Your task to perform on an android device: Go to notification settings Image 0: 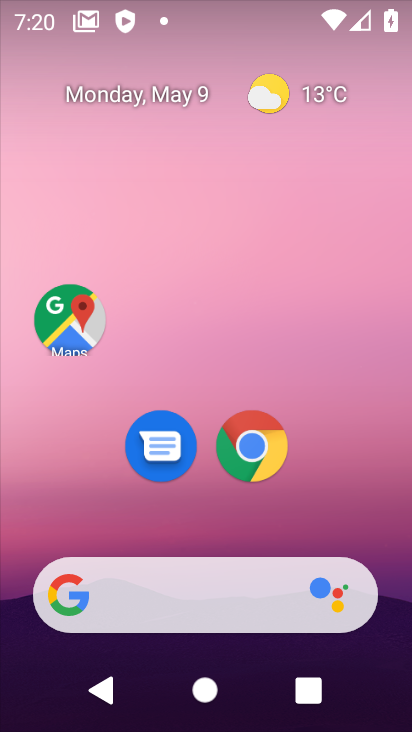
Step 0: drag from (342, 502) to (320, 151)
Your task to perform on an android device: Go to notification settings Image 1: 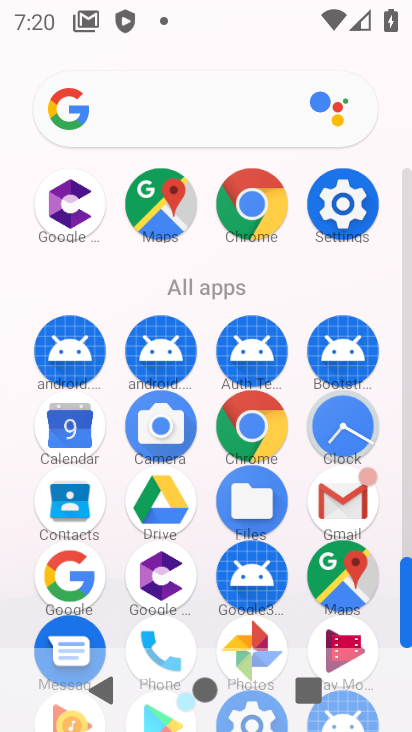
Step 1: click (344, 223)
Your task to perform on an android device: Go to notification settings Image 2: 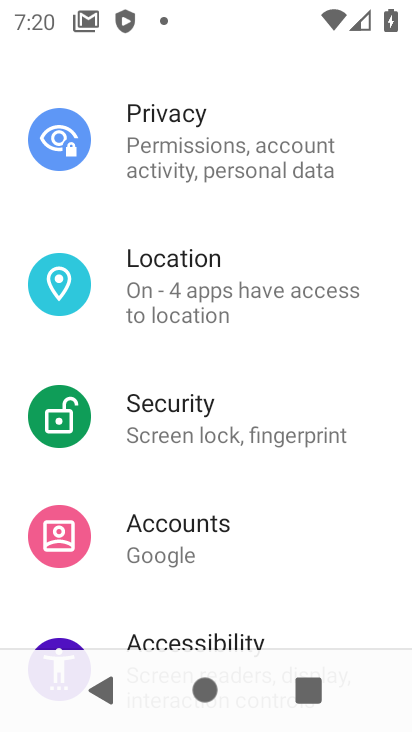
Step 2: drag from (278, 165) to (242, 590)
Your task to perform on an android device: Go to notification settings Image 3: 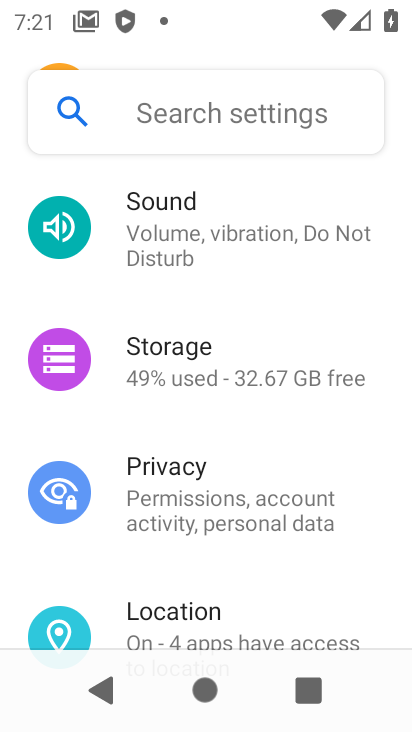
Step 3: drag from (263, 251) to (235, 578)
Your task to perform on an android device: Go to notification settings Image 4: 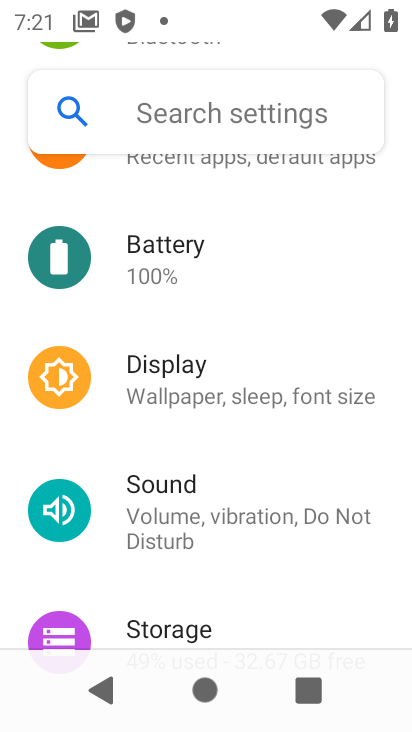
Step 4: drag from (231, 284) to (231, 581)
Your task to perform on an android device: Go to notification settings Image 5: 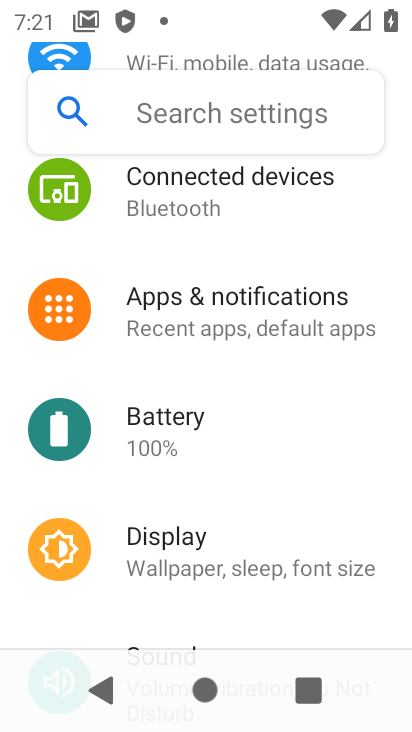
Step 5: click (234, 333)
Your task to perform on an android device: Go to notification settings Image 6: 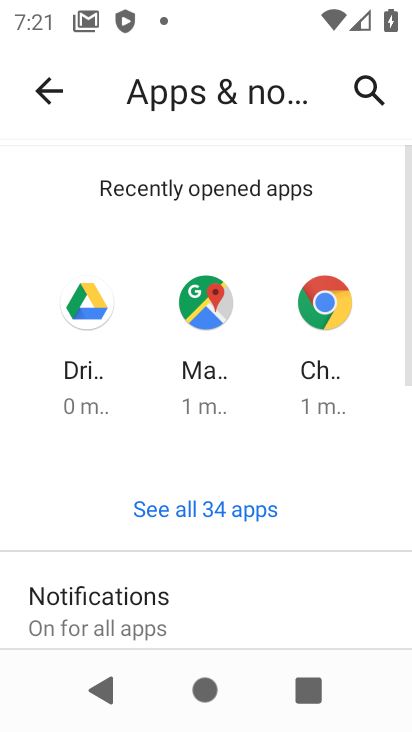
Step 6: drag from (247, 584) to (250, 230)
Your task to perform on an android device: Go to notification settings Image 7: 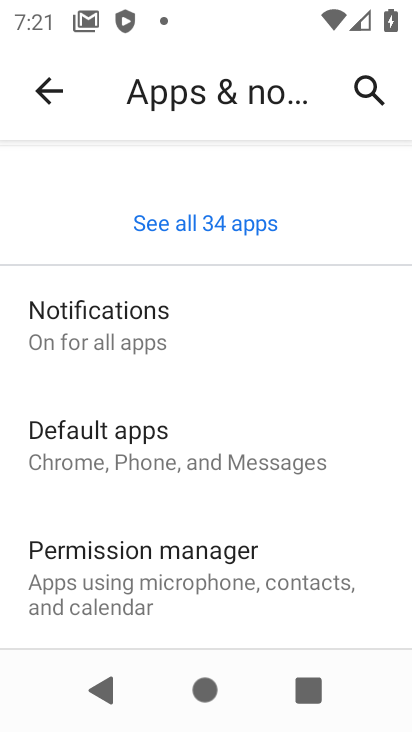
Step 7: click (208, 326)
Your task to perform on an android device: Go to notification settings Image 8: 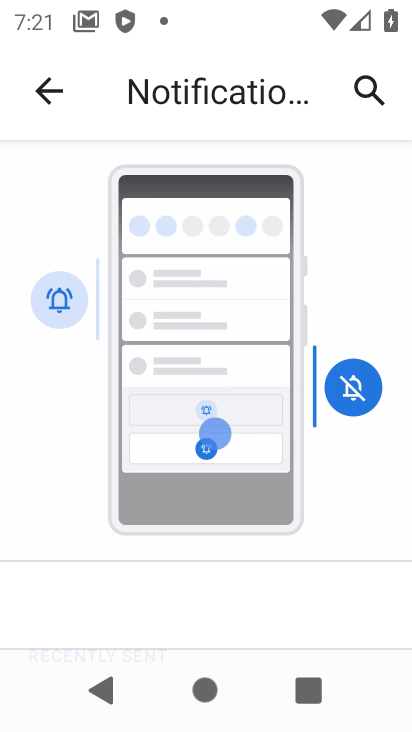
Step 8: task complete